Your task to perform on an android device: check out phone information Image 0: 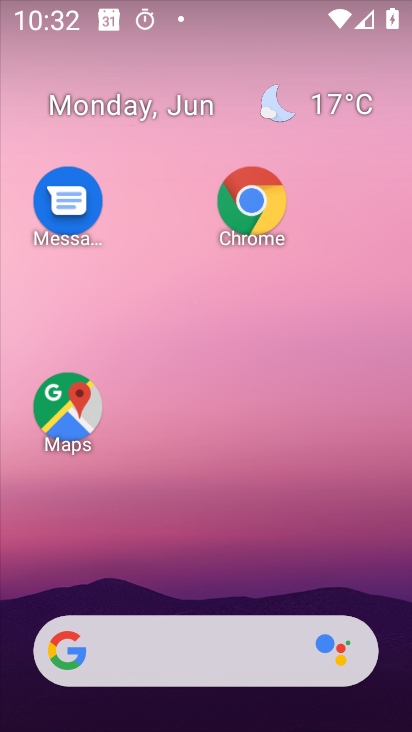
Step 0: drag from (219, 601) to (168, 194)
Your task to perform on an android device: check out phone information Image 1: 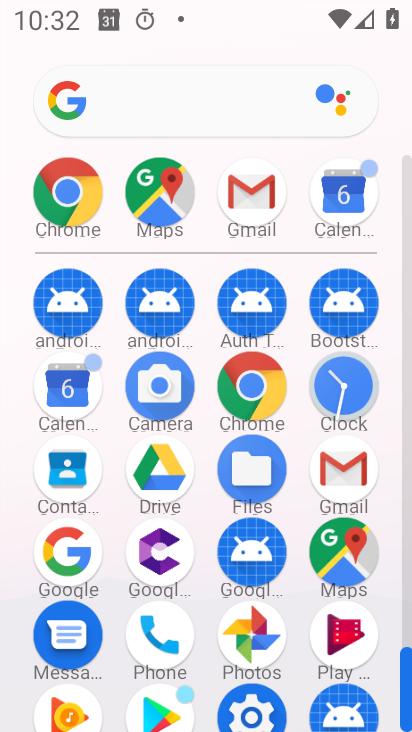
Step 1: click (237, 687)
Your task to perform on an android device: check out phone information Image 2: 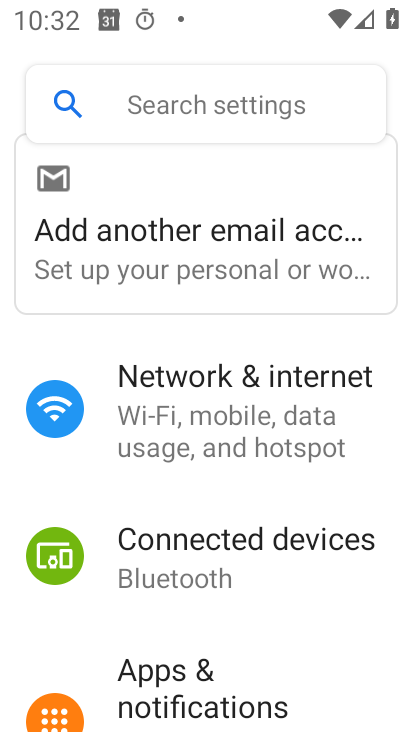
Step 2: task complete